Your task to perform on an android device: Open Wikipedia Image 0: 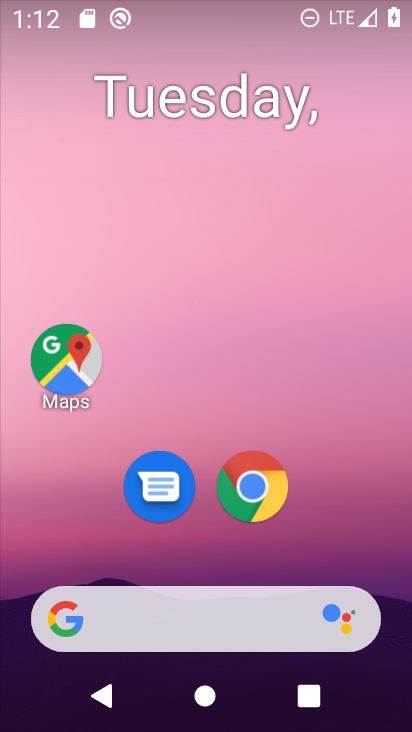
Step 0: click (252, 497)
Your task to perform on an android device: Open Wikipedia Image 1: 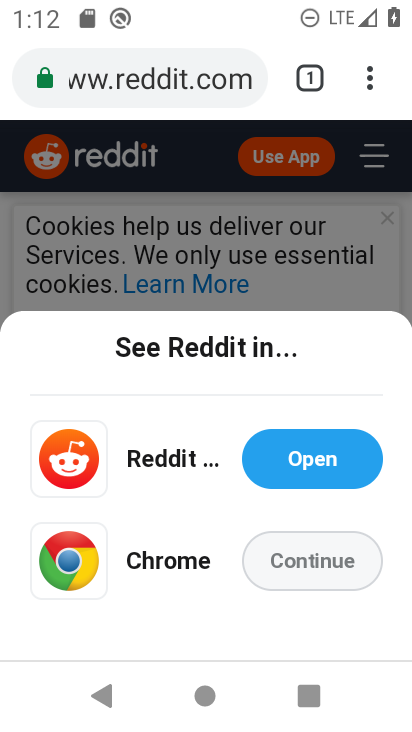
Step 1: click (309, 84)
Your task to perform on an android device: Open Wikipedia Image 2: 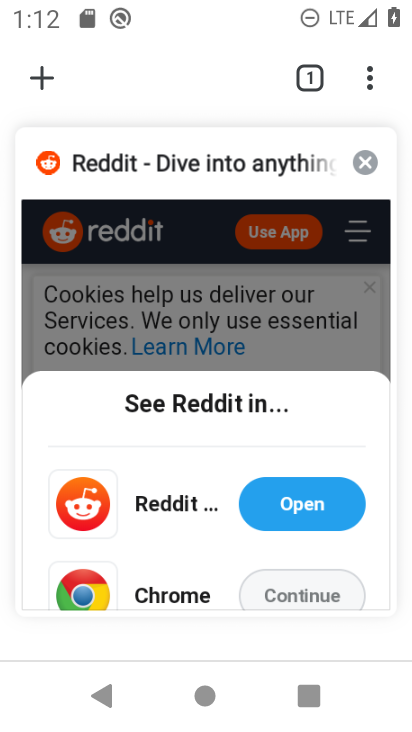
Step 2: click (367, 168)
Your task to perform on an android device: Open Wikipedia Image 3: 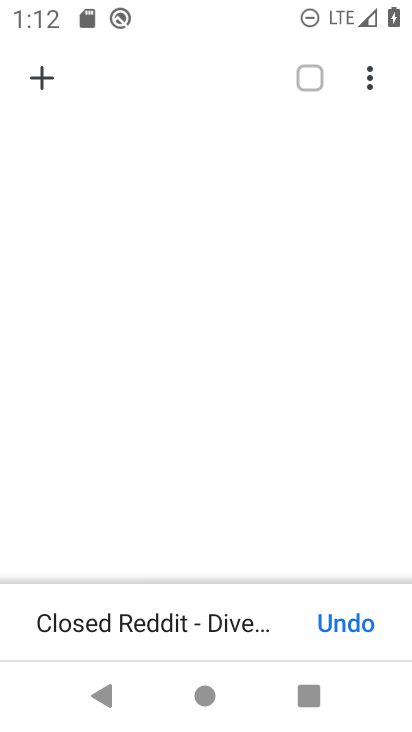
Step 3: click (43, 79)
Your task to perform on an android device: Open Wikipedia Image 4: 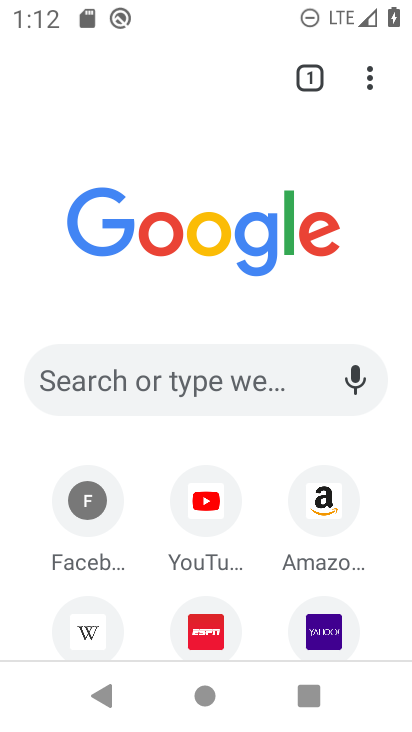
Step 4: click (102, 631)
Your task to perform on an android device: Open Wikipedia Image 5: 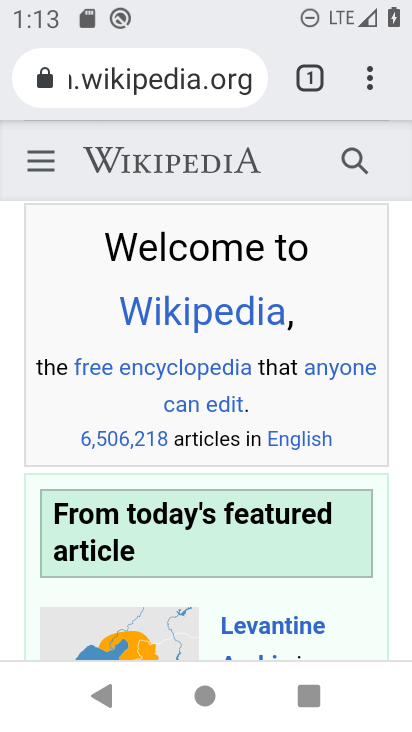
Step 5: task complete